Your task to perform on an android device: open app "Reddit" Image 0: 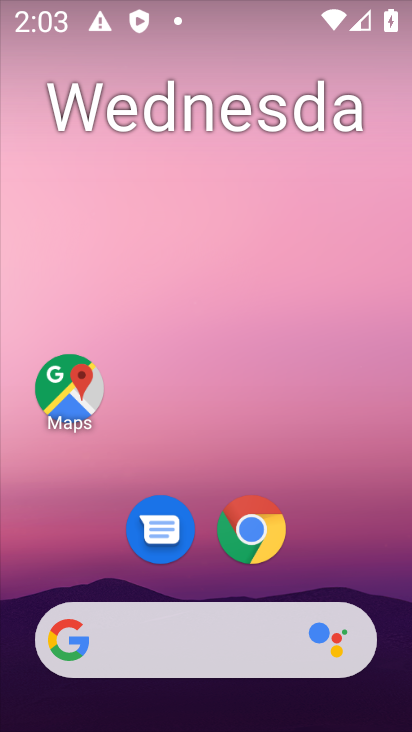
Step 0: drag from (190, 628) to (37, 9)
Your task to perform on an android device: open app "Reddit" Image 1: 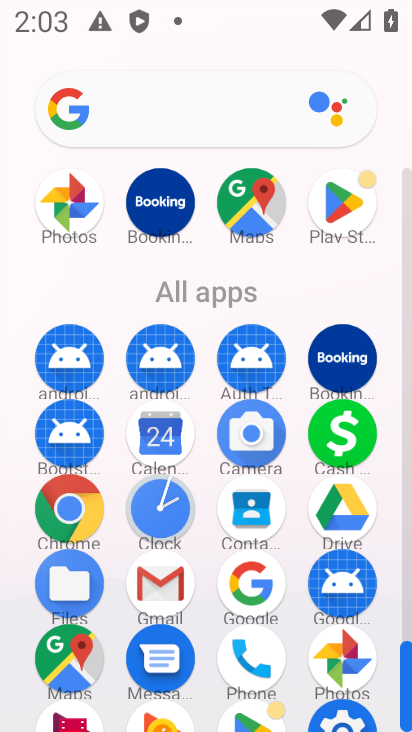
Step 1: click (357, 219)
Your task to perform on an android device: open app "Reddit" Image 2: 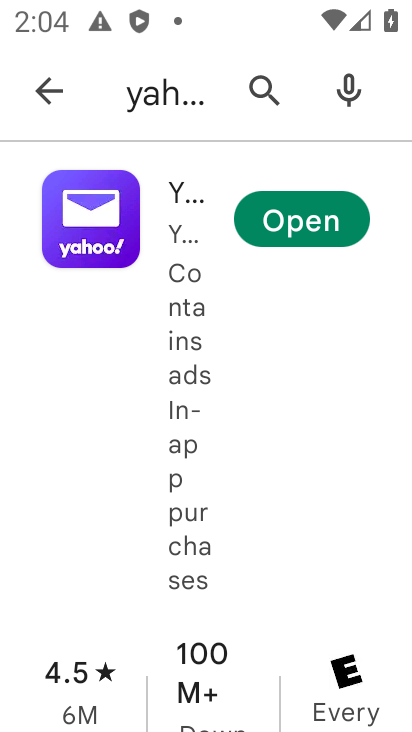
Step 2: click (264, 86)
Your task to perform on an android device: open app "Reddit" Image 3: 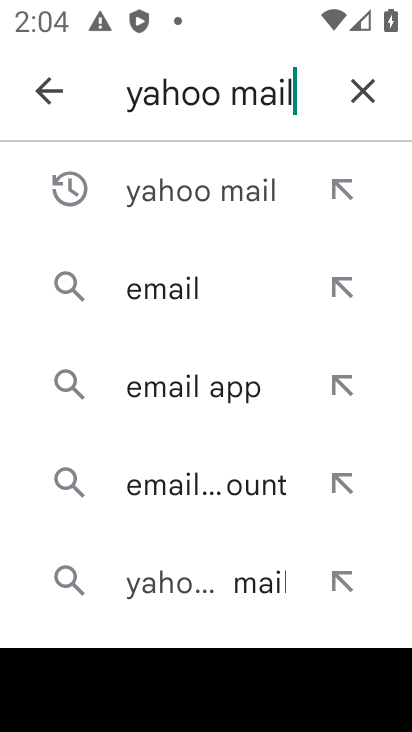
Step 3: click (377, 100)
Your task to perform on an android device: open app "Reddit" Image 4: 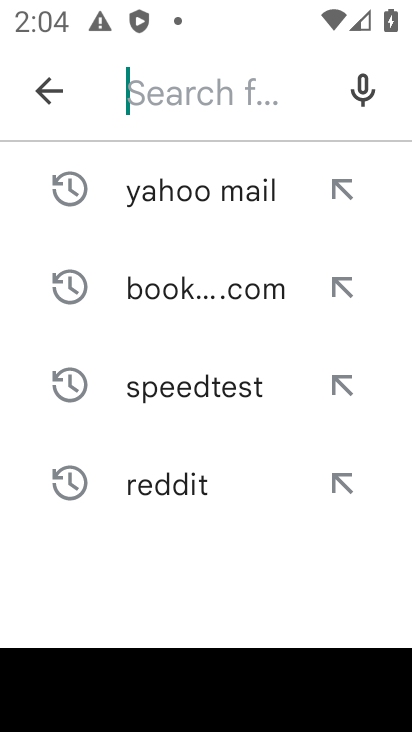
Step 4: type "reddit"
Your task to perform on an android device: open app "Reddit" Image 5: 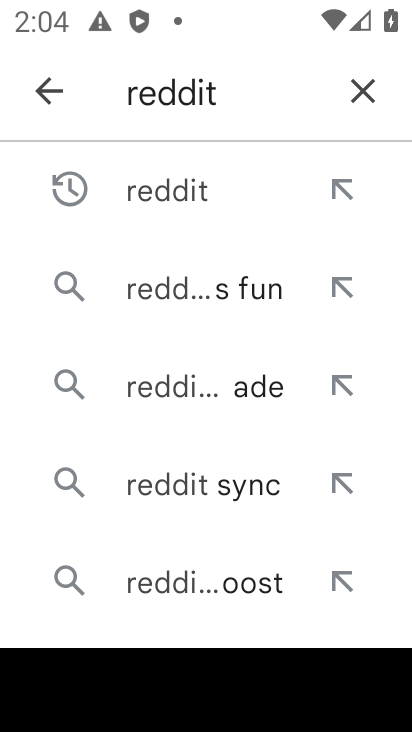
Step 5: click (168, 206)
Your task to perform on an android device: open app "Reddit" Image 6: 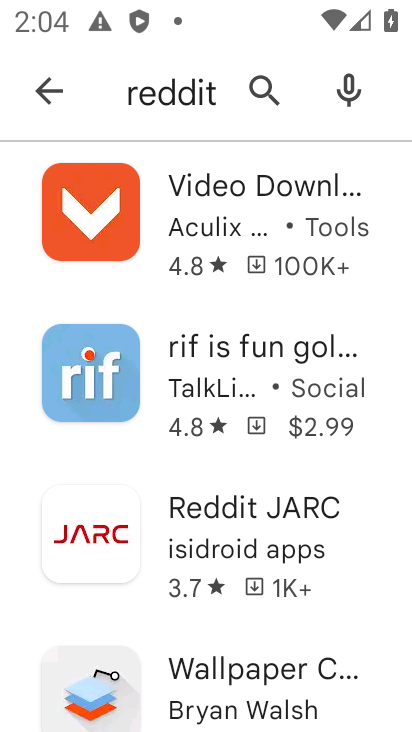
Step 6: task complete